Your task to perform on an android device: change alarm snooze length Image 0: 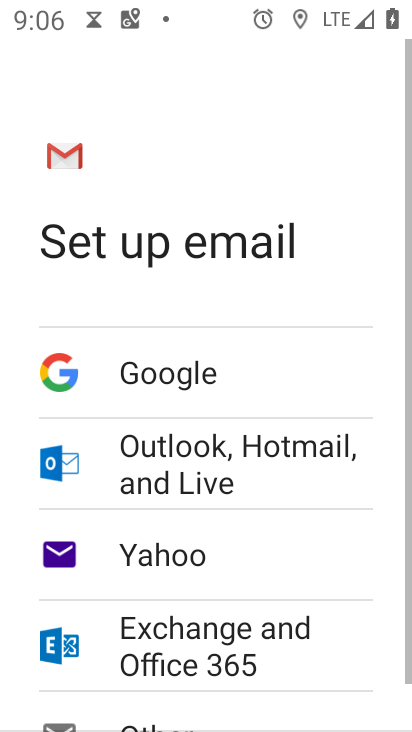
Step 0: press home button
Your task to perform on an android device: change alarm snooze length Image 1: 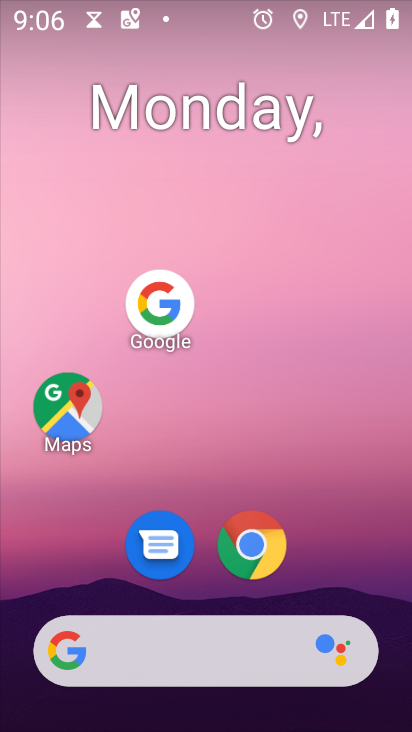
Step 1: drag from (191, 660) to (284, 163)
Your task to perform on an android device: change alarm snooze length Image 2: 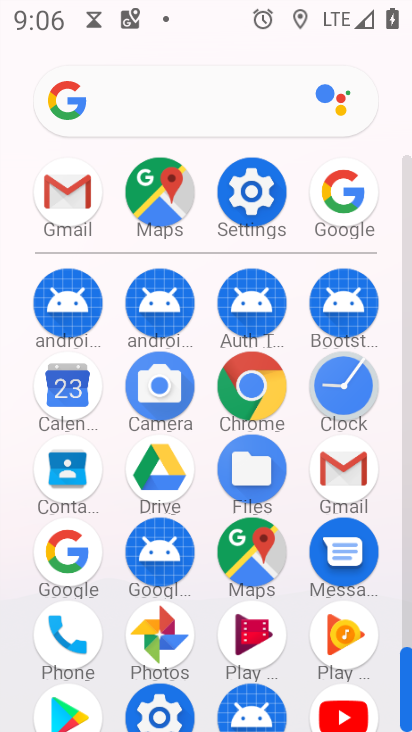
Step 2: click (347, 397)
Your task to perform on an android device: change alarm snooze length Image 3: 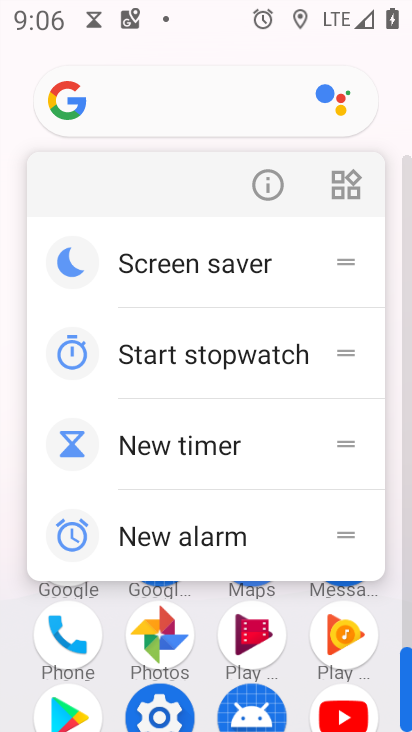
Step 3: click (347, 395)
Your task to perform on an android device: change alarm snooze length Image 4: 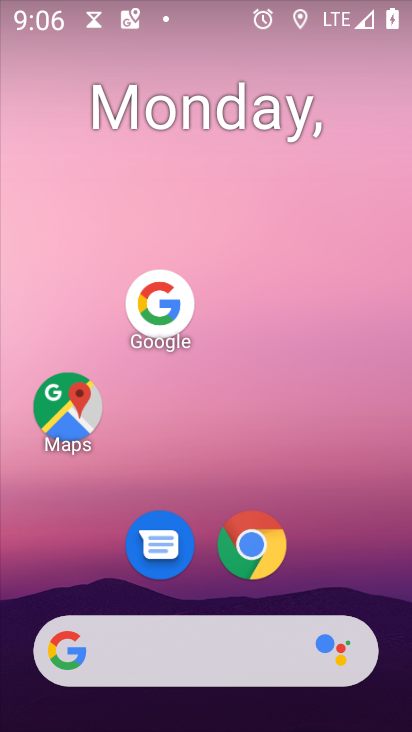
Step 4: drag from (212, 631) to (319, 48)
Your task to perform on an android device: change alarm snooze length Image 5: 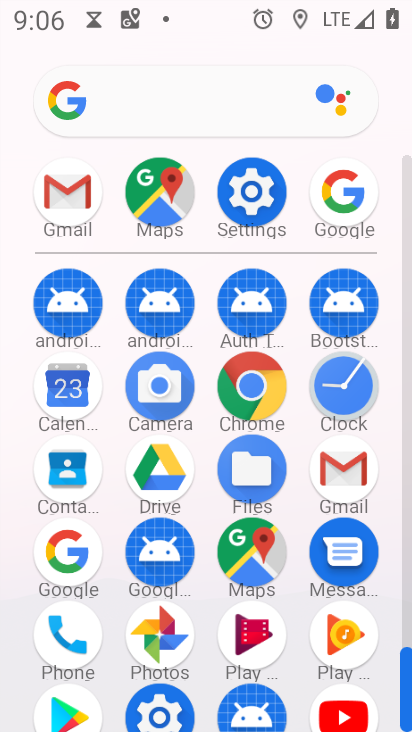
Step 5: click (348, 406)
Your task to perform on an android device: change alarm snooze length Image 6: 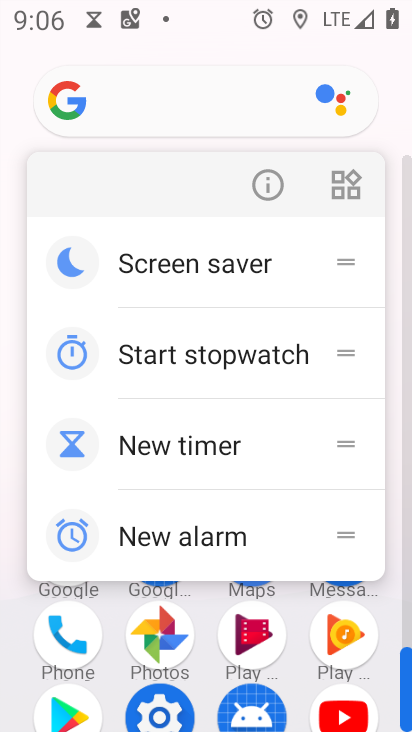
Step 6: drag from (185, 607) to (380, 66)
Your task to perform on an android device: change alarm snooze length Image 7: 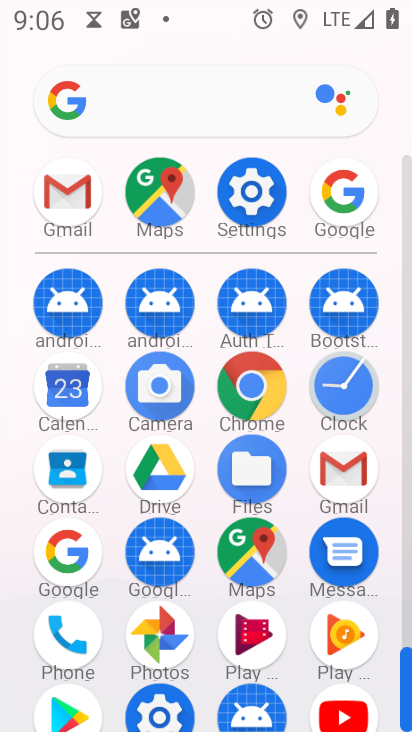
Step 7: click (343, 400)
Your task to perform on an android device: change alarm snooze length Image 8: 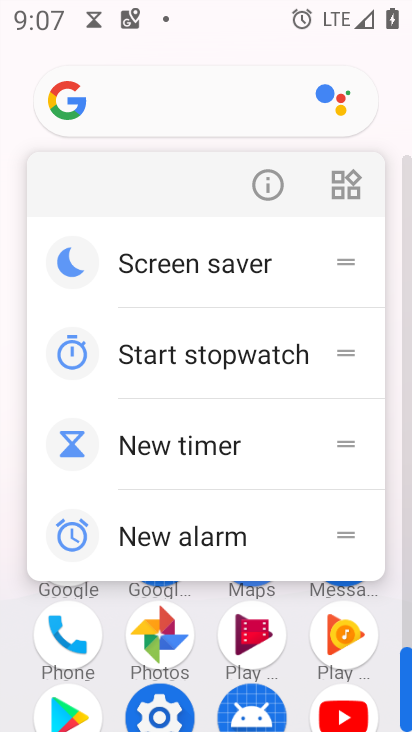
Step 8: click (398, 615)
Your task to perform on an android device: change alarm snooze length Image 9: 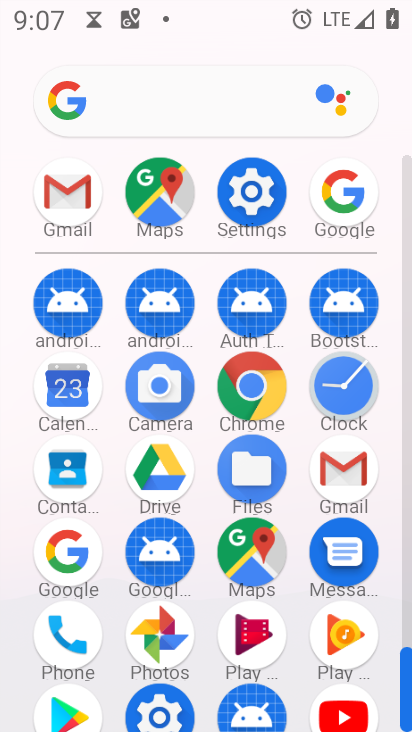
Step 9: click (341, 384)
Your task to perform on an android device: change alarm snooze length Image 10: 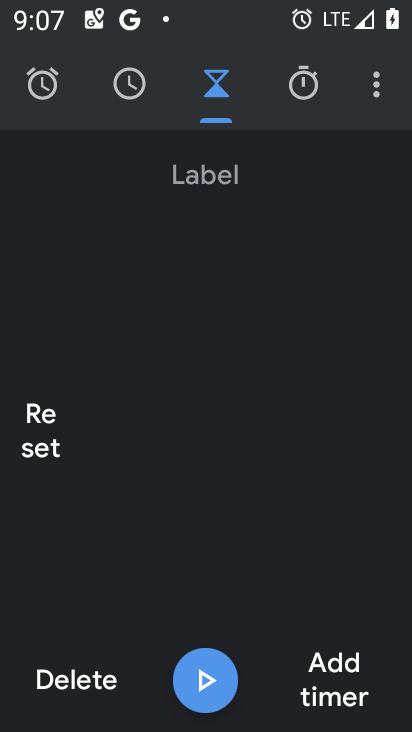
Step 10: click (374, 77)
Your task to perform on an android device: change alarm snooze length Image 11: 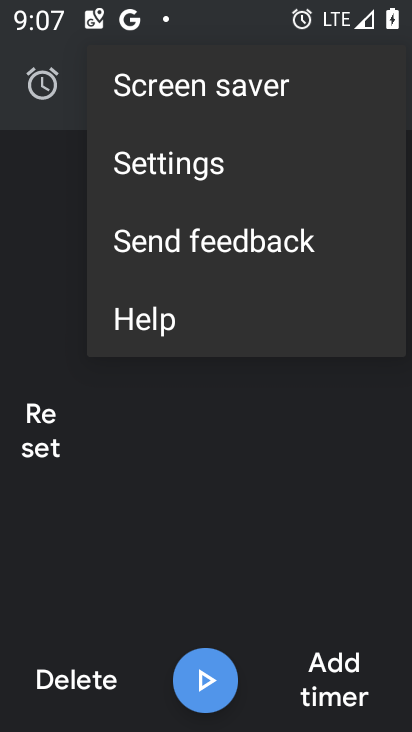
Step 11: click (155, 170)
Your task to perform on an android device: change alarm snooze length Image 12: 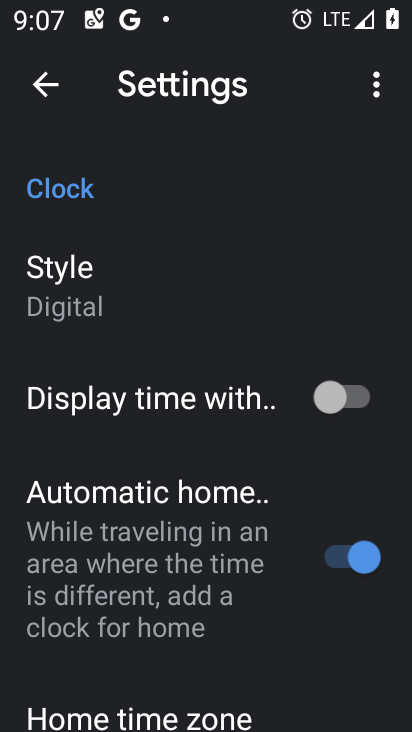
Step 12: drag from (135, 607) to (286, 62)
Your task to perform on an android device: change alarm snooze length Image 13: 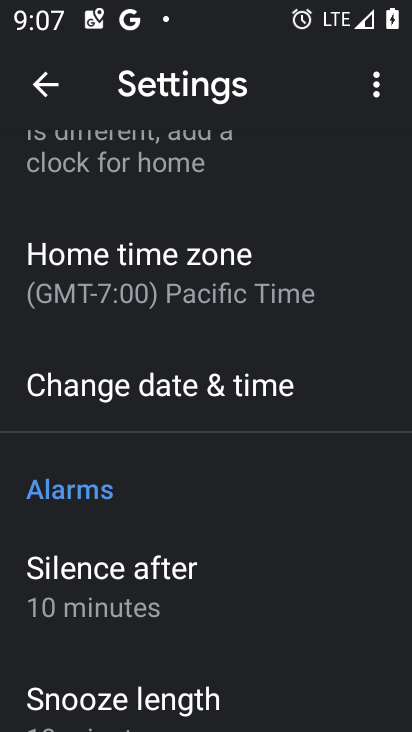
Step 13: drag from (193, 612) to (278, 3)
Your task to perform on an android device: change alarm snooze length Image 14: 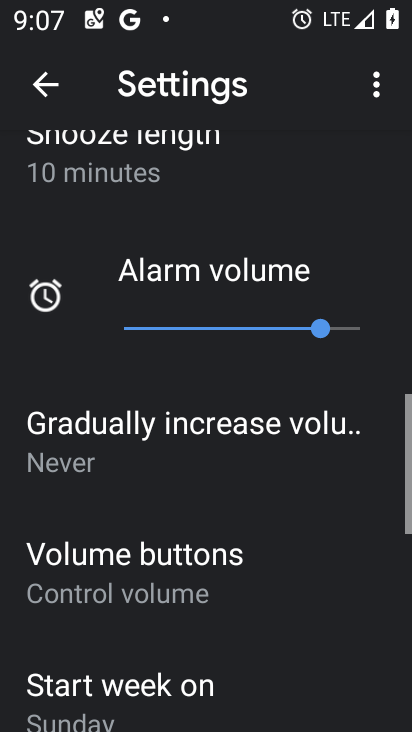
Step 14: drag from (204, 630) to (235, 666)
Your task to perform on an android device: change alarm snooze length Image 15: 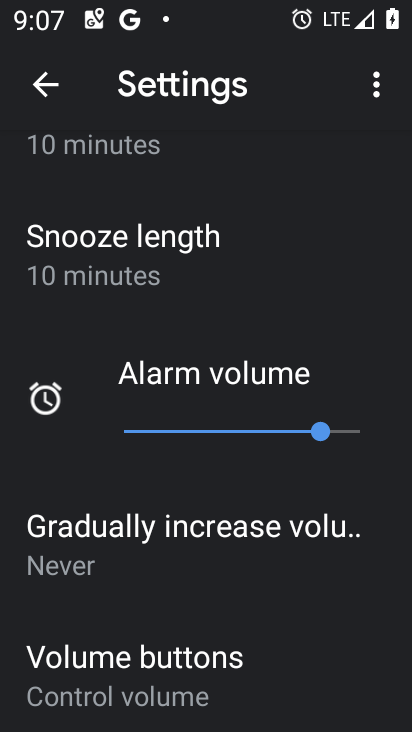
Step 15: click (126, 272)
Your task to perform on an android device: change alarm snooze length Image 16: 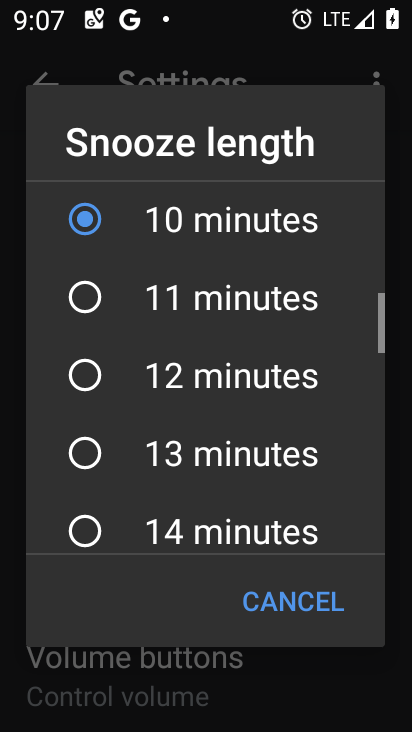
Step 16: click (83, 535)
Your task to perform on an android device: change alarm snooze length Image 17: 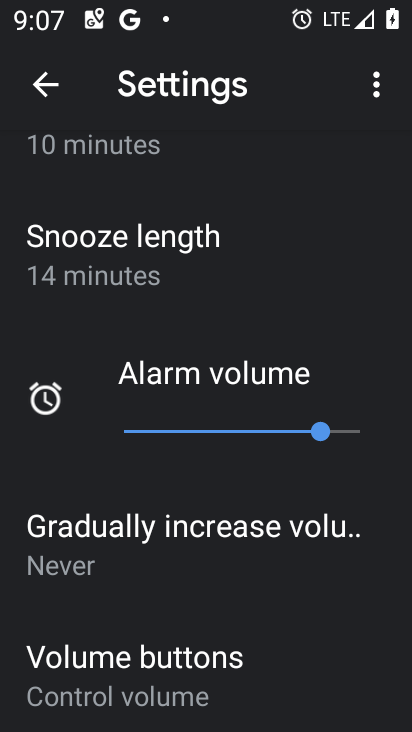
Step 17: task complete